Your task to perform on an android device: Show the shopping cart on ebay. Search for "jbl charge 4" on ebay, select the first entry, and add it to the cart. Image 0: 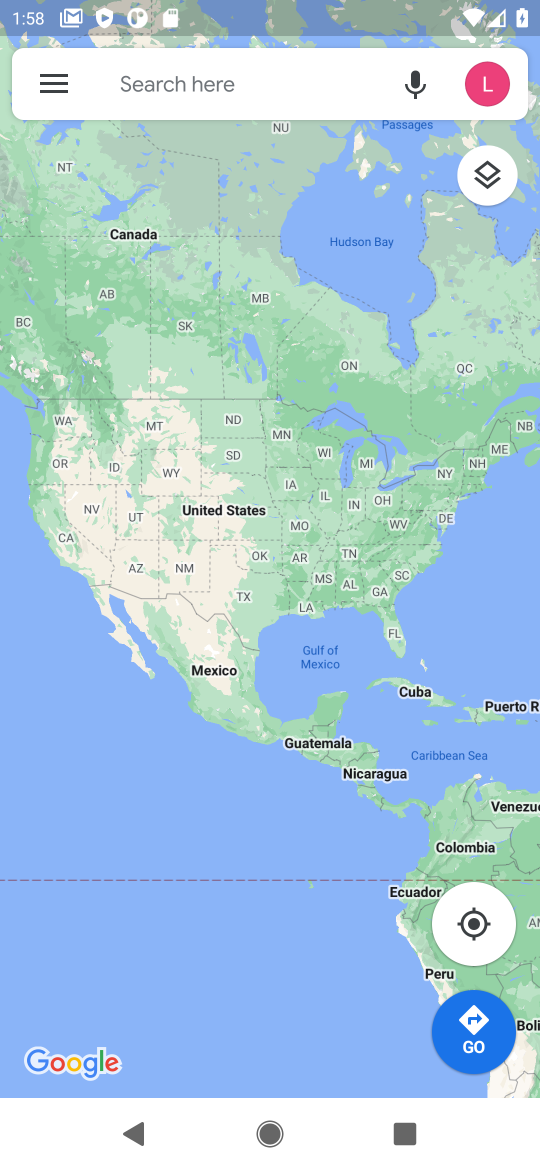
Step 0: press home button
Your task to perform on an android device: Show the shopping cart on ebay. Search for "jbl charge 4" on ebay, select the first entry, and add it to the cart. Image 1: 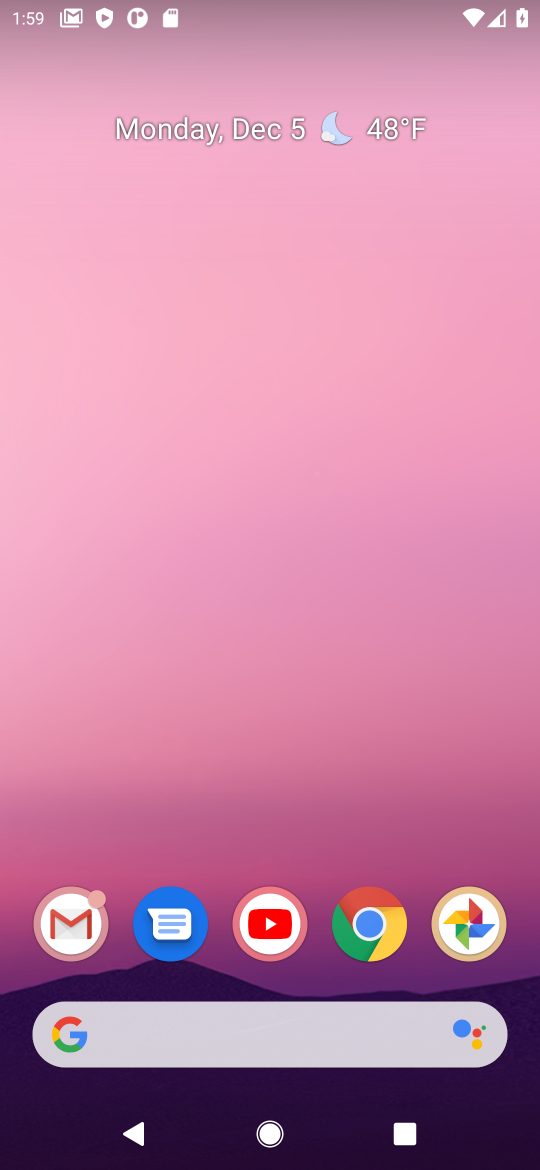
Step 1: click (210, 1040)
Your task to perform on an android device: Show the shopping cart on ebay. Search for "jbl charge 4" on ebay, select the first entry, and add it to the cart. Image 2: 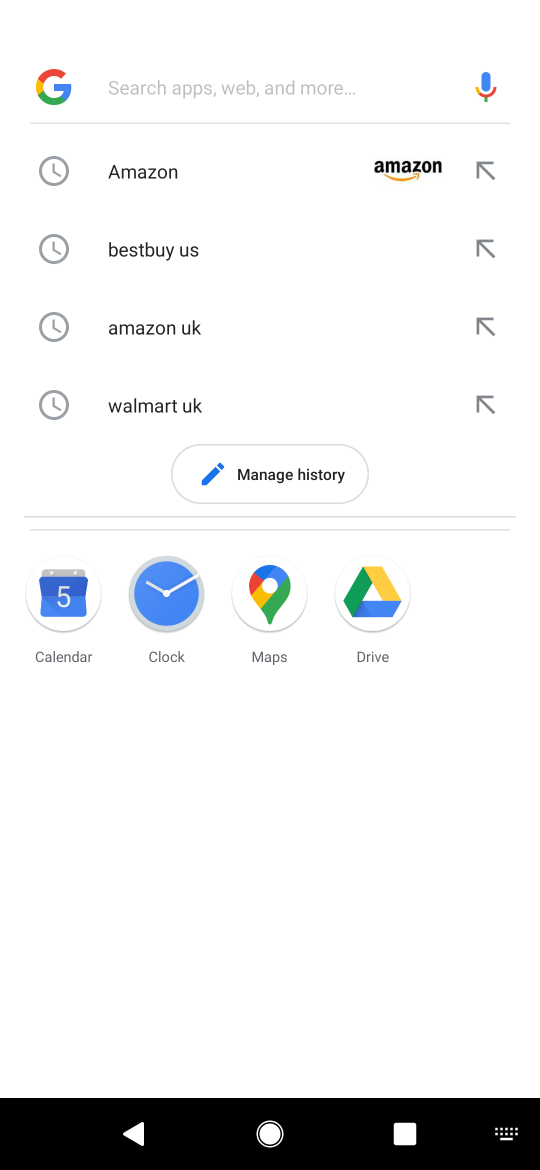
Step 2: type "ebaya.co,m"
Your task to perform on an android device: Show the shopping cart on ebay. Search for "jbl charge 4" on ebay, select the first entry, and add it to the cart. Image 3: 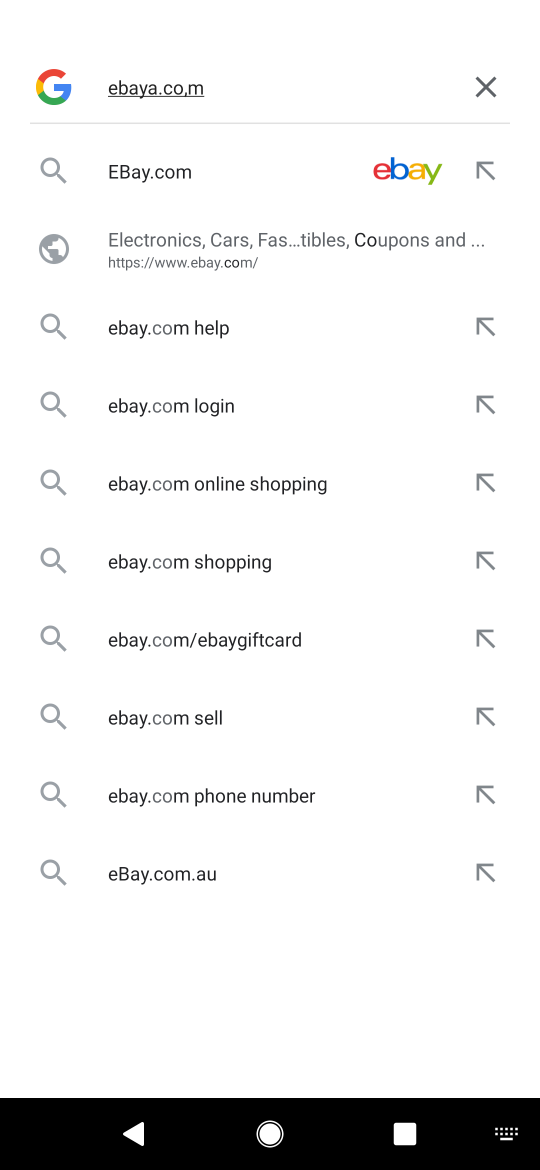
Step 3: click (162, 158)
Your task to perform on an android device: Show the shopping cart on ebay. Search for "jbl charge 4" on ebay, select the first entry, and add it to the cart. Image 4: 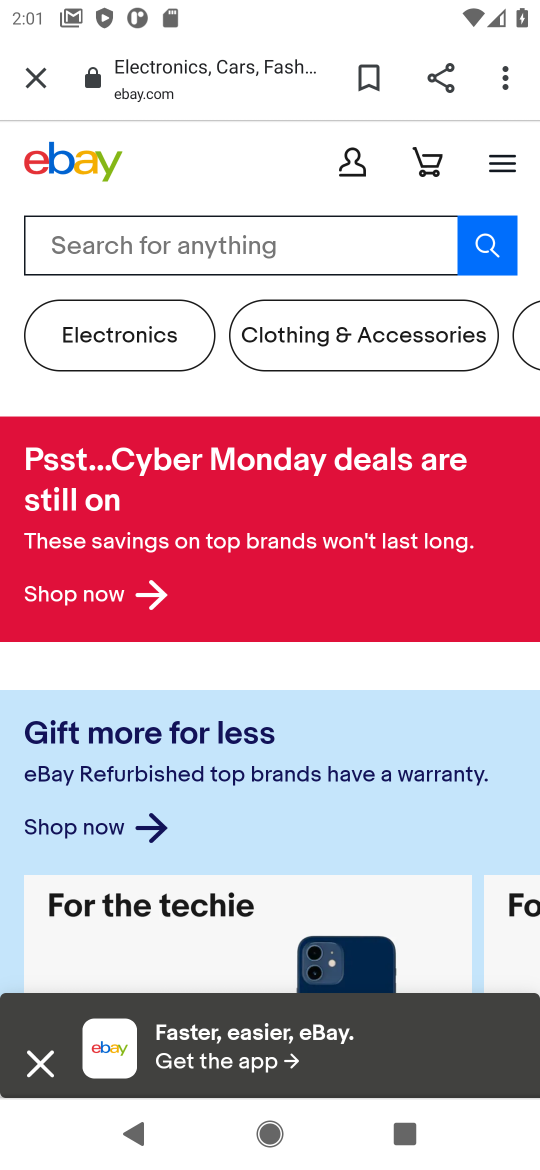
Step 4: task complete